Your task to perform on an android device: Search for the best rated drill on Lowes.com Image 0: 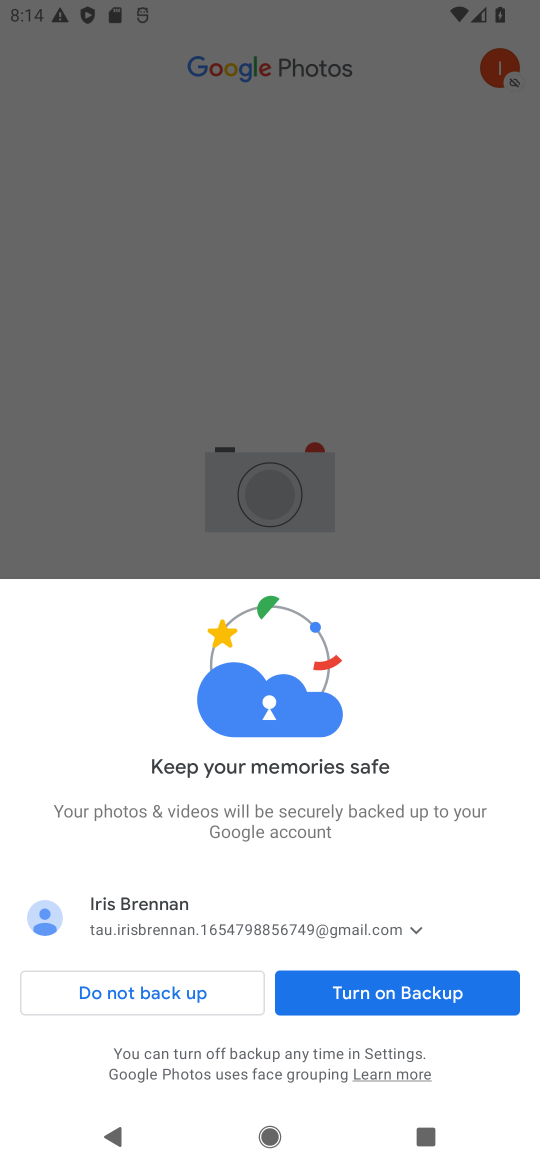
Step 0: press home button
Your task to perform on an android device: Search for the best rated drill on Lowes.com Image 1: 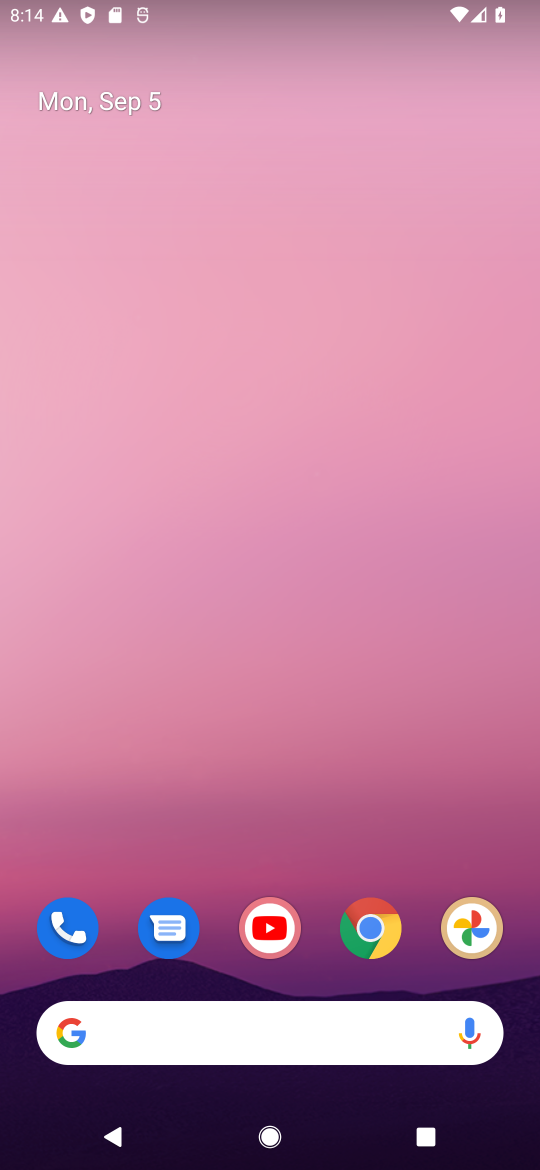
Step 1: click (362, 922)
Your task to perform on an android device: Search for the best rated drill on Lowes.com Image 2: 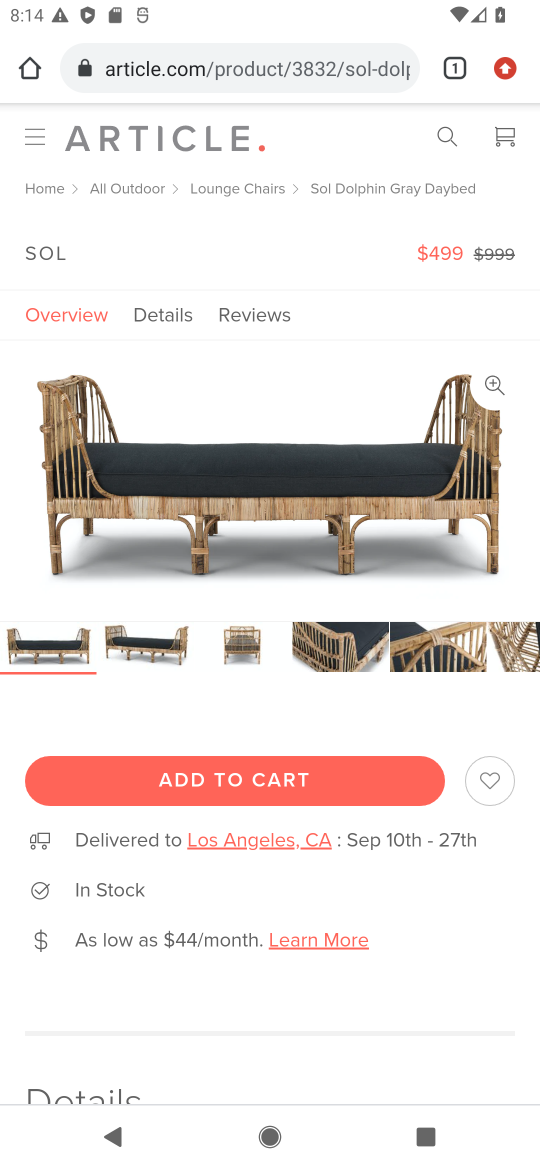
Step 2: click (286, 62)
Your task to perform on an android device: Search for the best rated drill on Lowes.com Image 3: 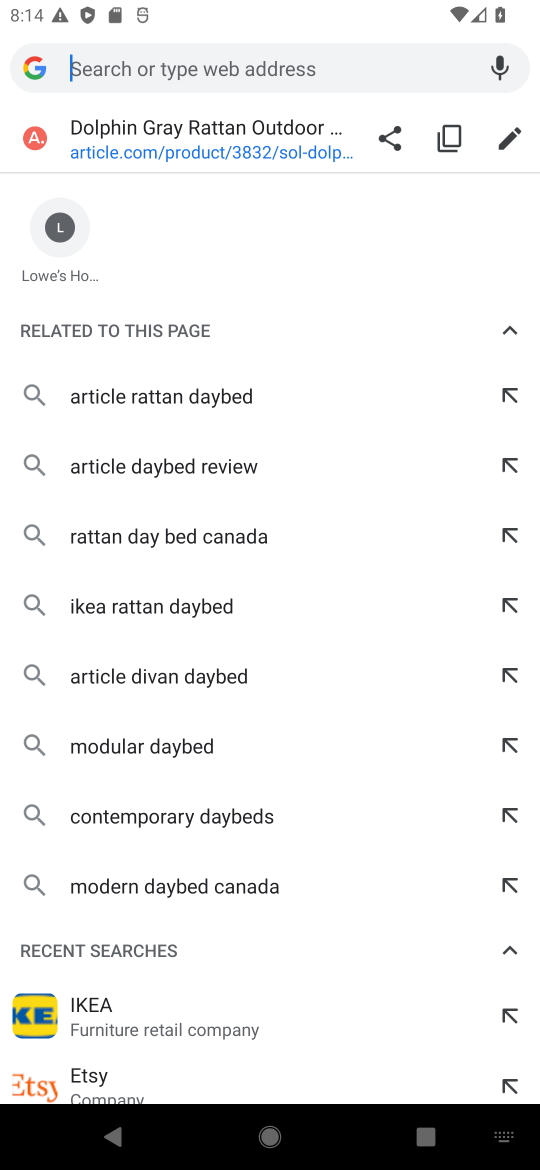
Step 3: click (286, 72)
Your task to perform on an android device: Search for the best rated drill on Lowes.com Image 4: 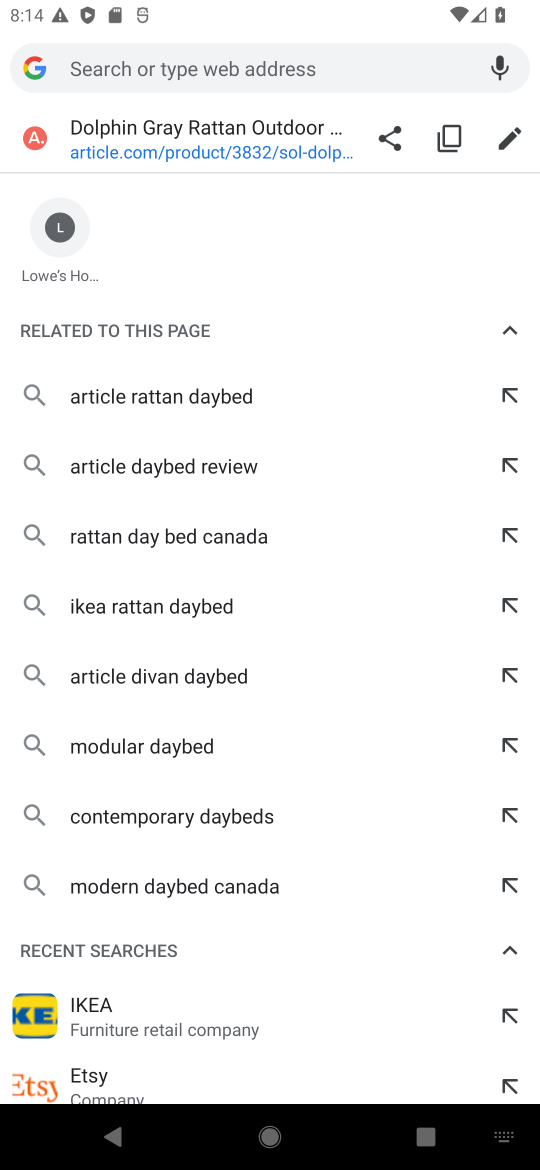
Step 4: type "lowes.com"
Your task to perform on an android device: Search for the best rated drill on Lowes.com Image 5: 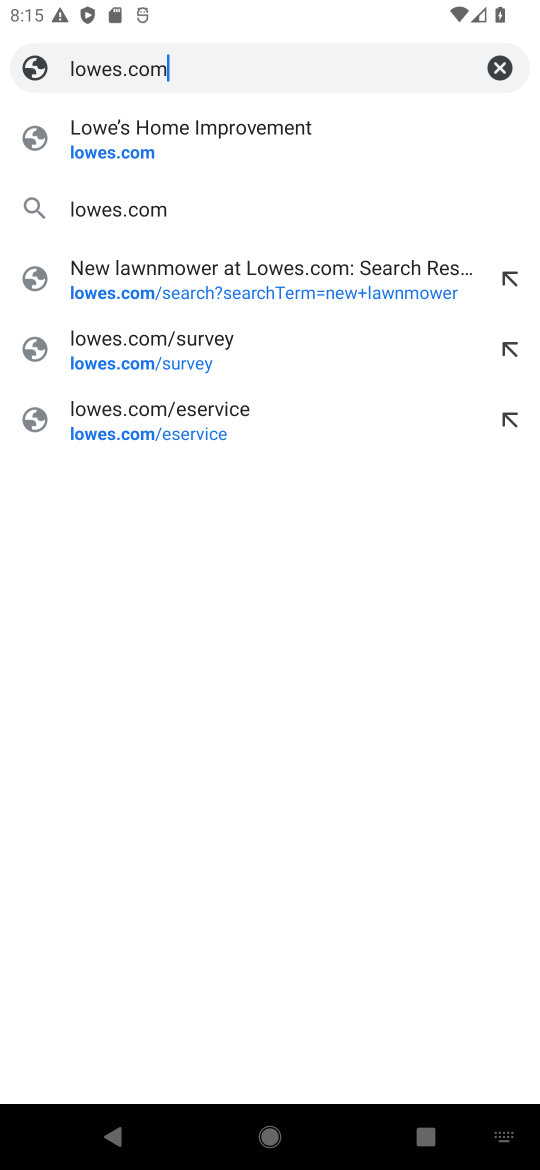
Step 5: click (178, 143)
Your task to perform on an android device: Search for the best rated drill on Lowes.com Image 6: 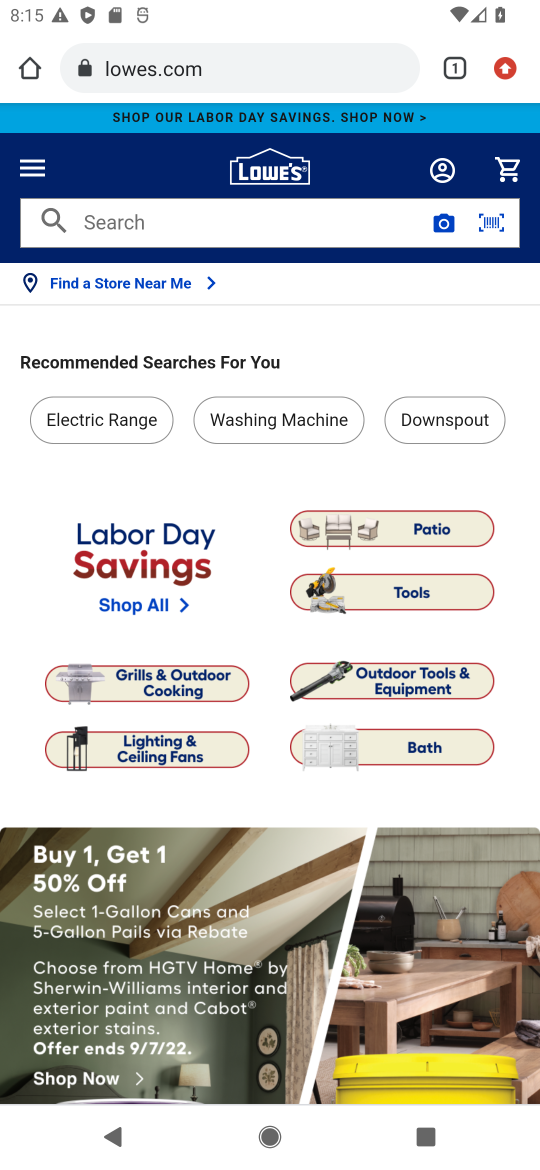
Step 6: click (325, 229)
Your task to perform on an android device: Search for the best rated drill on Lowes.com Image 7: 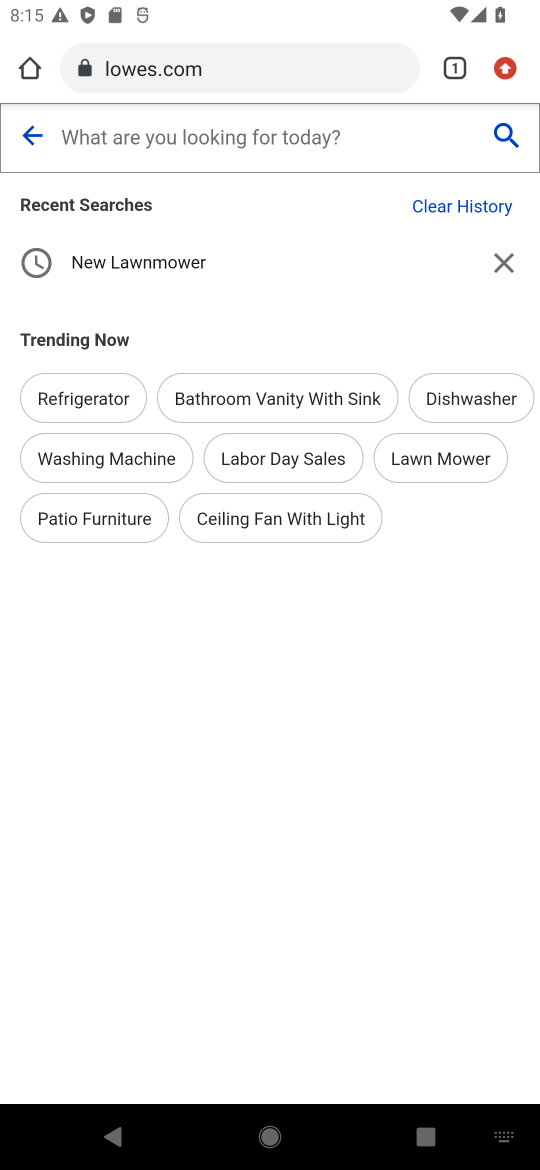
Step 7: type "best rated drill"
Your task to perform on an android device: Search for the best rated drill on Lowes.com Image 8: 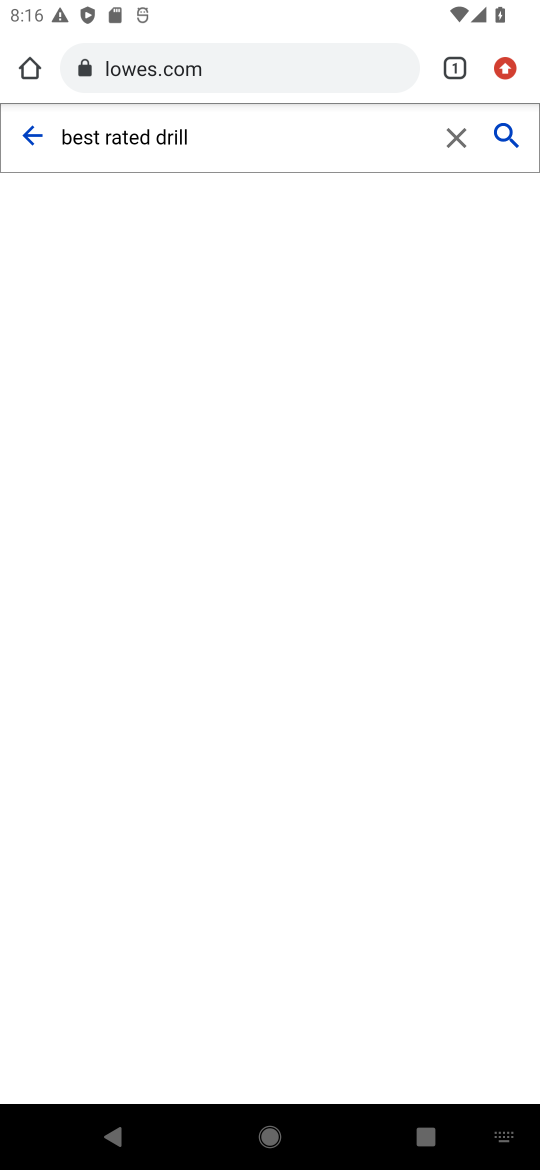
Step 8: click (503, 130)
Your task to perform on an android device: Search for the best rated drill on Lowes.com Image 9: 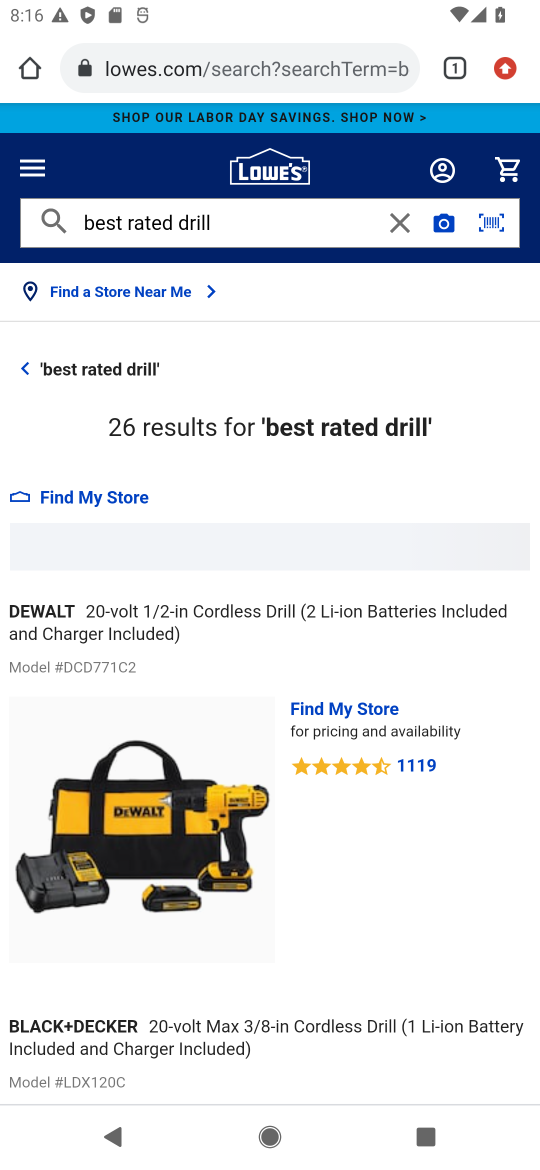
Step 9: task complete